Your task to perform on an android device: empty trash in google photos Image 0: 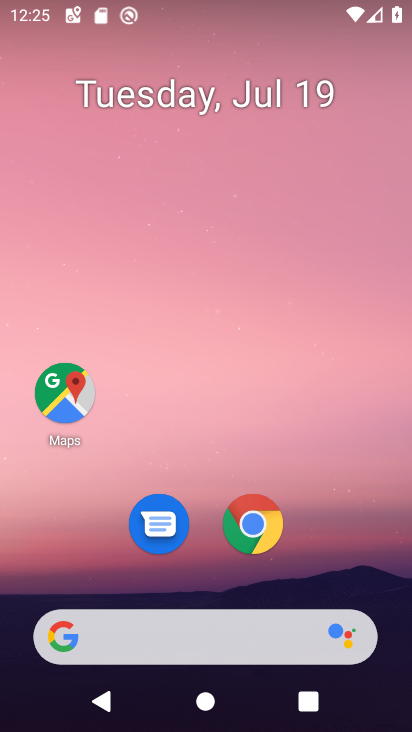
Step 0: drag from (322, 548) to (303, 31)
Your task to perform on an android device: empty trash in google photos Image 1: 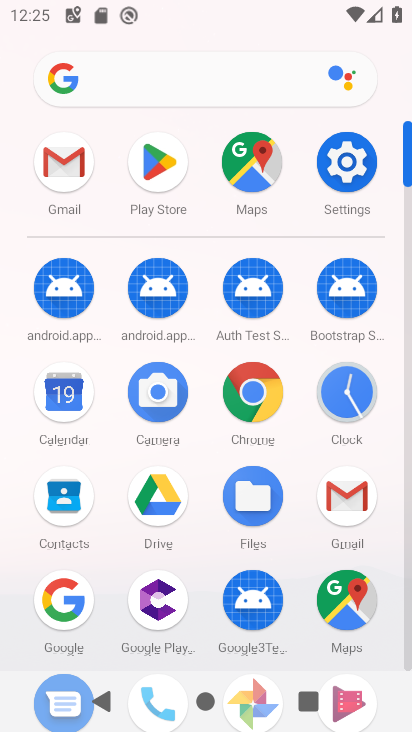
Step 1: drag from (222, 481) to (206, 176)
Your task to perform on an android device: empty trash in google photos Image 2: 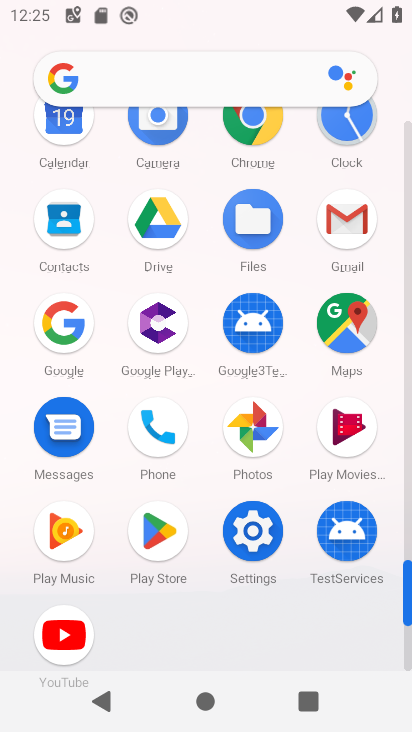
Step 2: click (250, 426)
Your task to perform on an android device: empty trash in google photos Image 3: 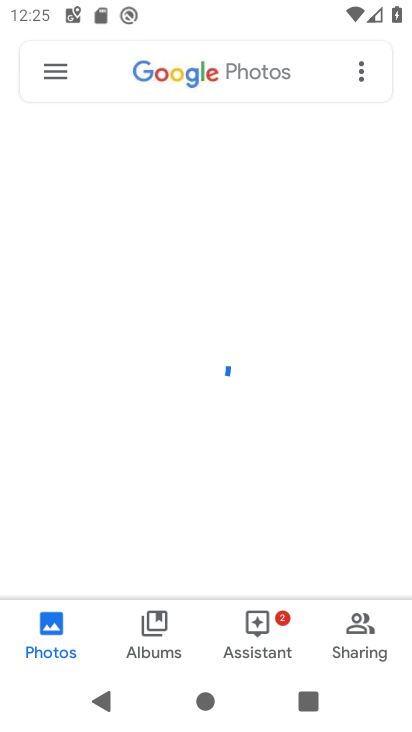
Step 3: click (65, 74)
Your task to perform on an android device: empty trash in google photos Image 4: 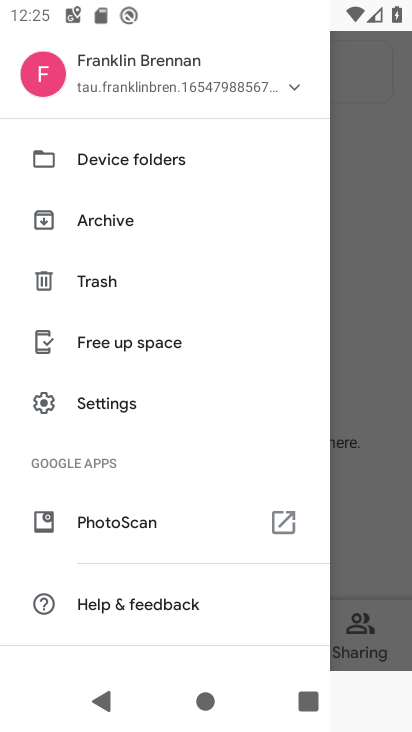
Step 4: click (99, 285)
Your task to perform on an android device: empty trash in google photos Image 5: 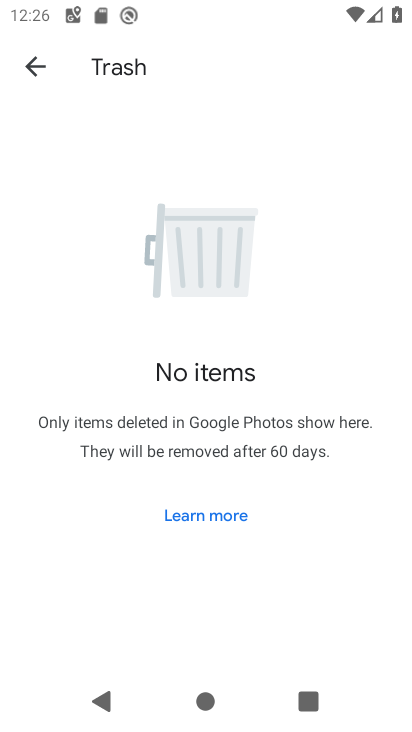
Step 5: task complete